Your task to perform on an android device: change the clock display to show seconds Image 0: 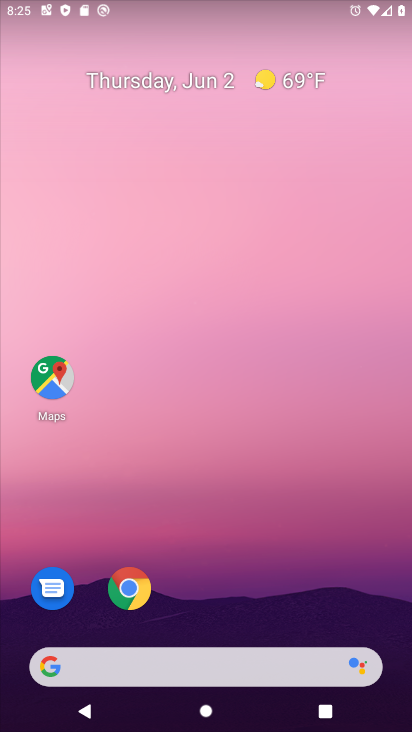
Step 0: drag from (232, 731) to (232, 6)
Your task to perform on an android device: change the clock display to show seconds Image 1: 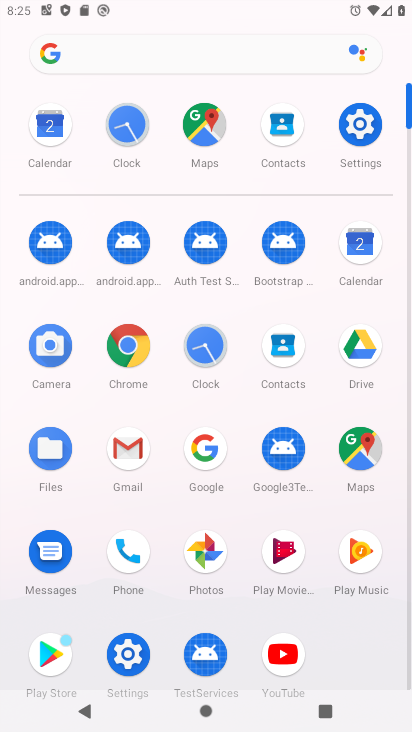
Step 1: click (206, 350)
Your task to perform on an android device: change the clock display to show seconds Image 2: 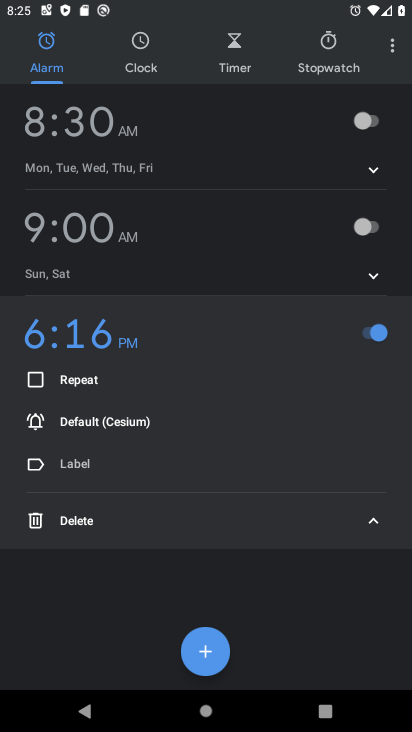
Step 2: click (394, 53)
Your task to perform on an android device: change the clock display to show seconds Image 3: 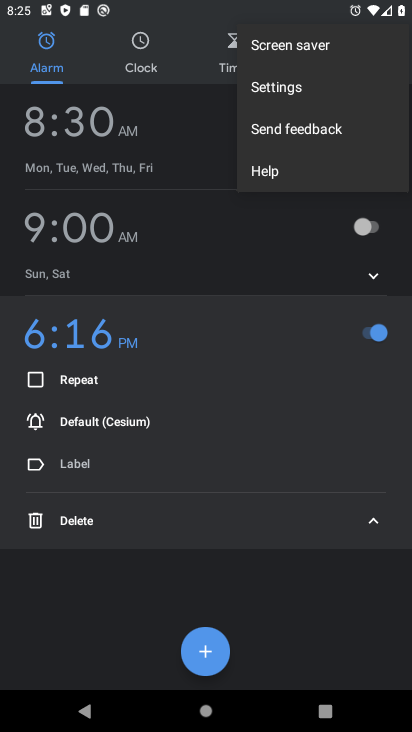
Step 3: click (286, 85)
Your task to perform on an android device: change the clock display to show seconds Image 4: 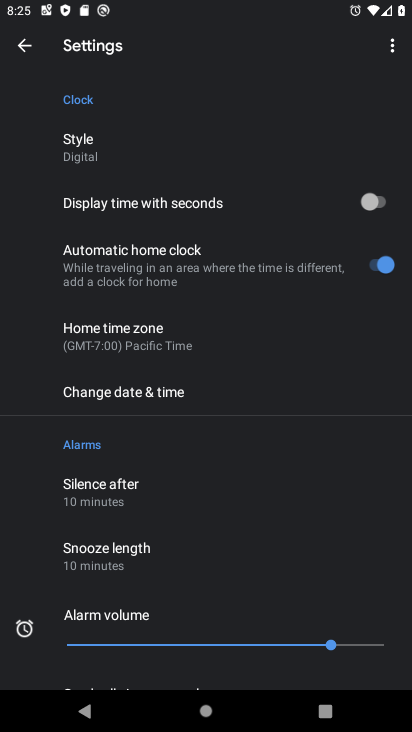
Step 4: click (377, 202)
Your task to perform on an android device: change the clock display to show seconds Image 5: 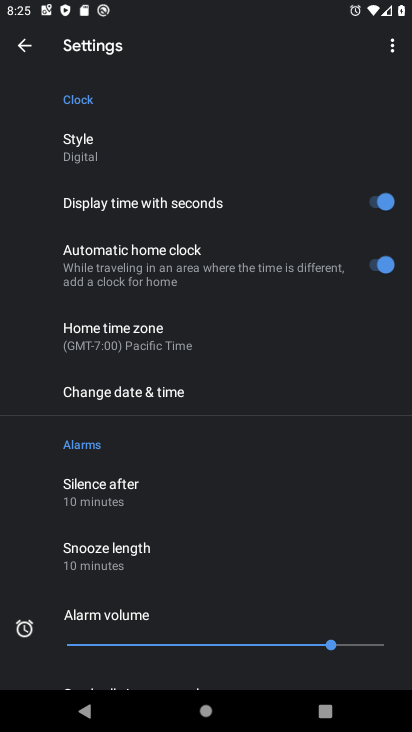
Step 5: task complete